Your task to perform on an android device: Go to battery settings Image 0: 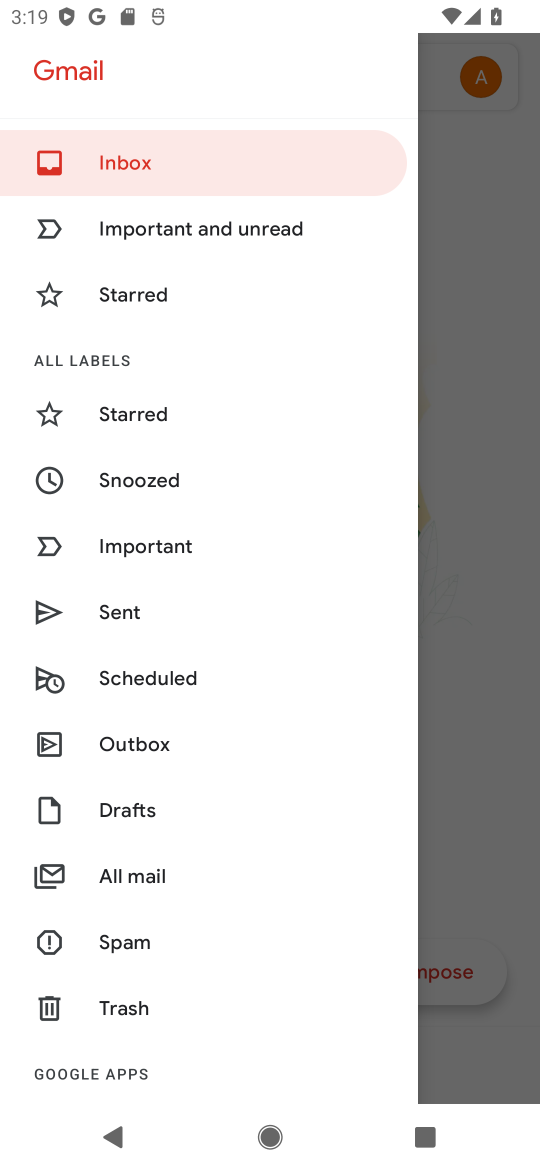
Step 0: press home button
Your task to perform on an android device: Go to battery settings Image 1: 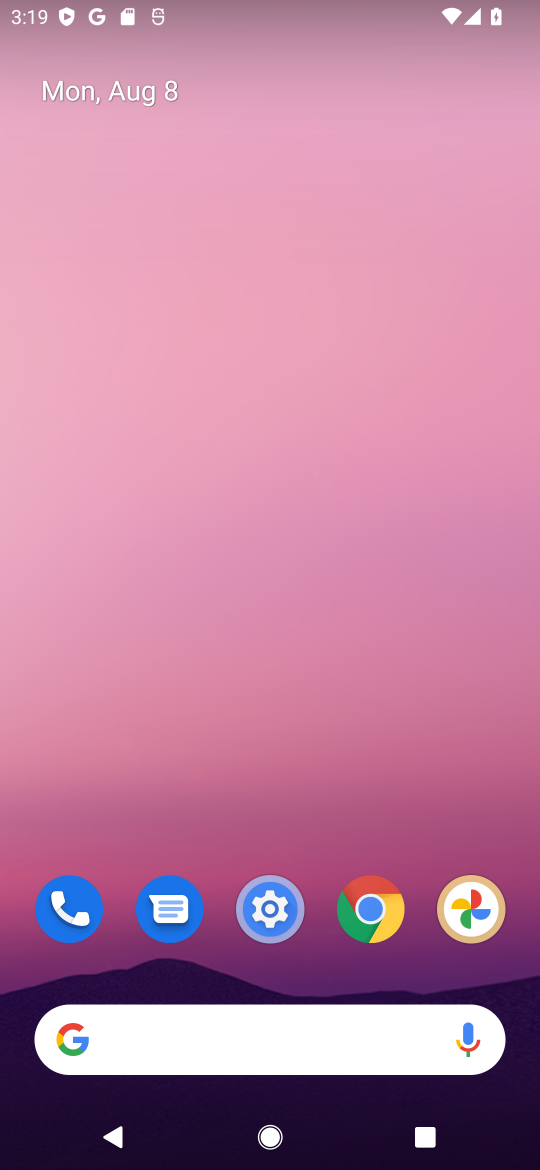
Step 1: click (272, 912)
Your task to perform on an android device: Go to battery settings Image 2: 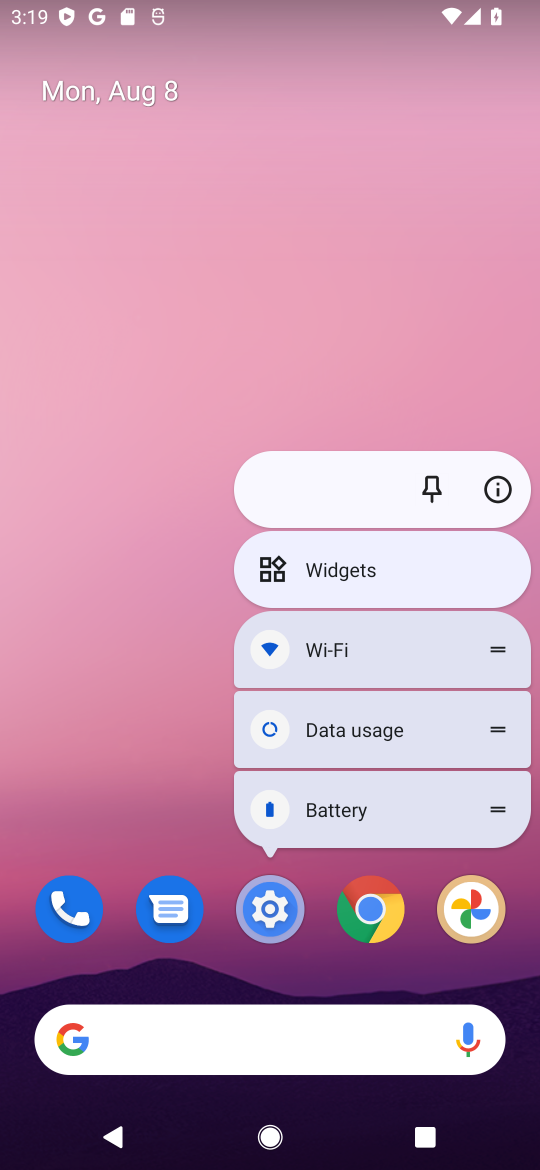
Step 2: click (271, 900)
Your task to perform on an android device: Go to battery settings Image 3: 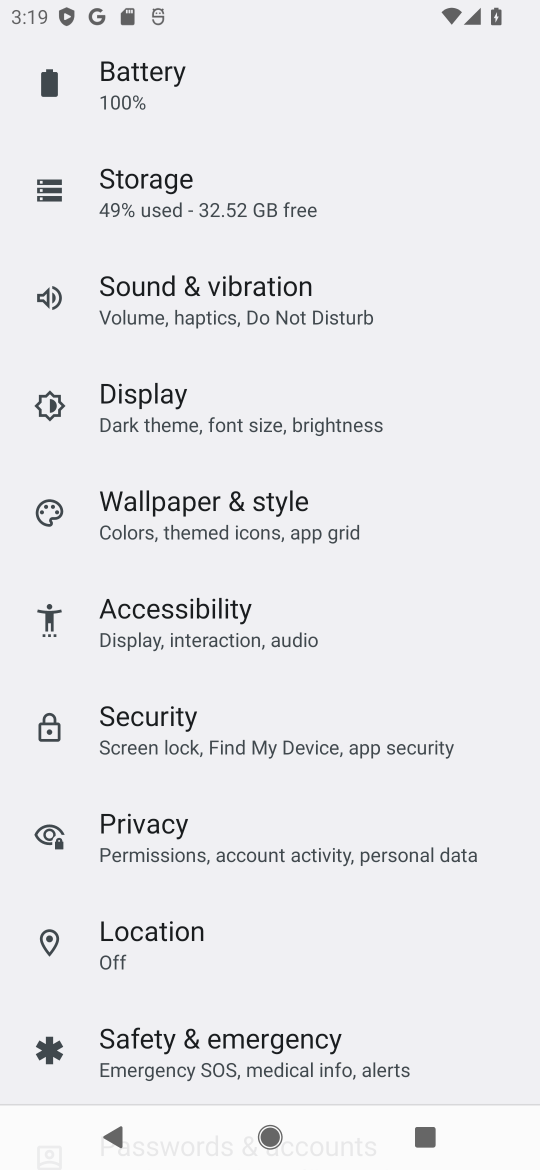
Step 3: click (164, 86)
Your task to perform on an android device: Go to battery settings Image 4: 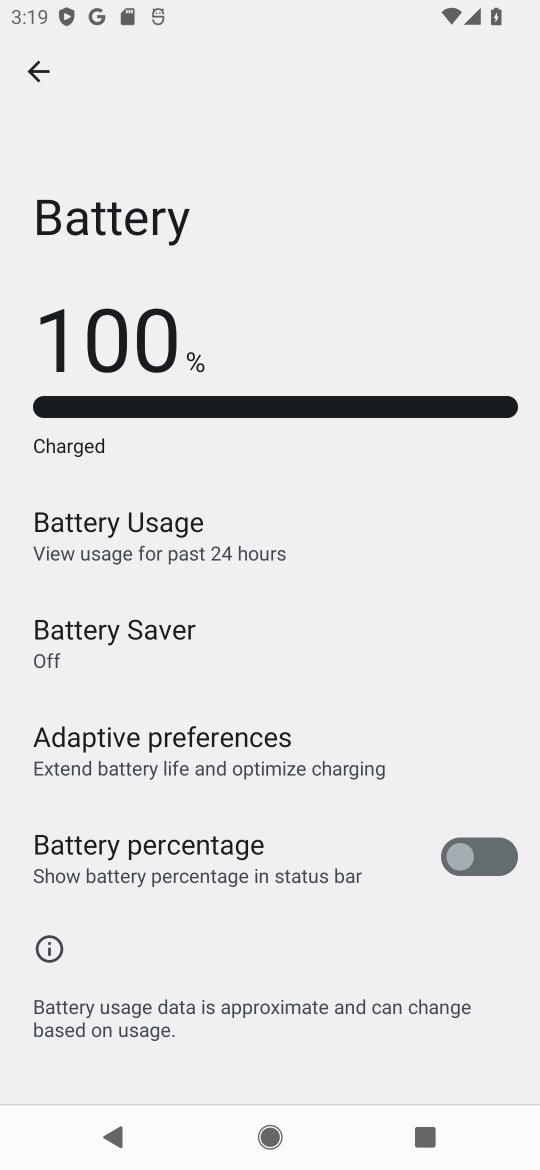
Step 4: task complete